Your task to perform on an android device: install app "Booking.com: Hotels and more" Image 0: 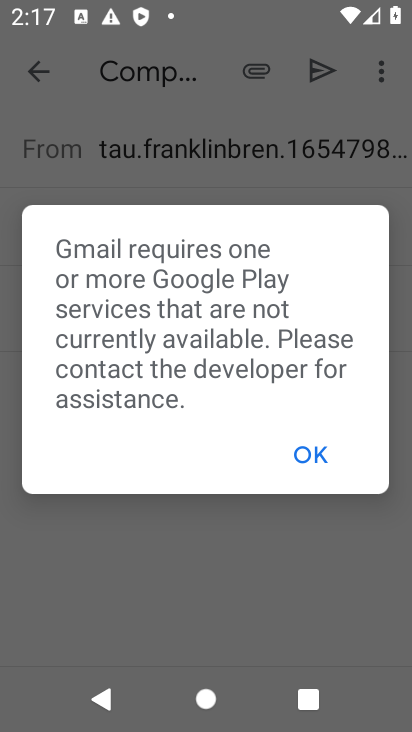
Step 0: press home button
Your task to perform on an android device: install app "Booking.com: Hotels and more" Image 1: 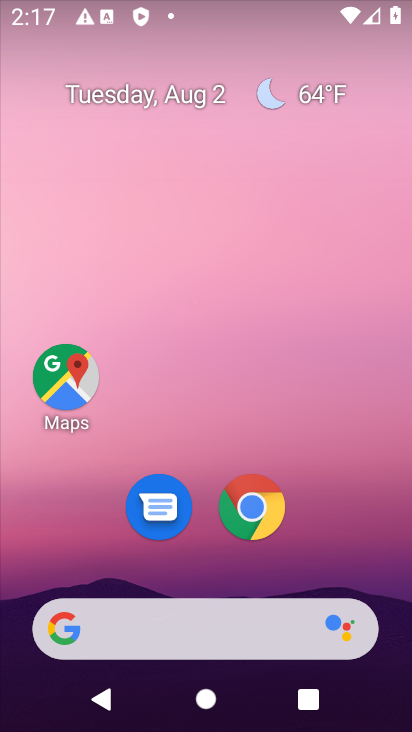
Step 1: drag from (197, 575) to (193, 2)
Your task to perform on an android device: install app "Booking.com: Hotels and more" Image 2: 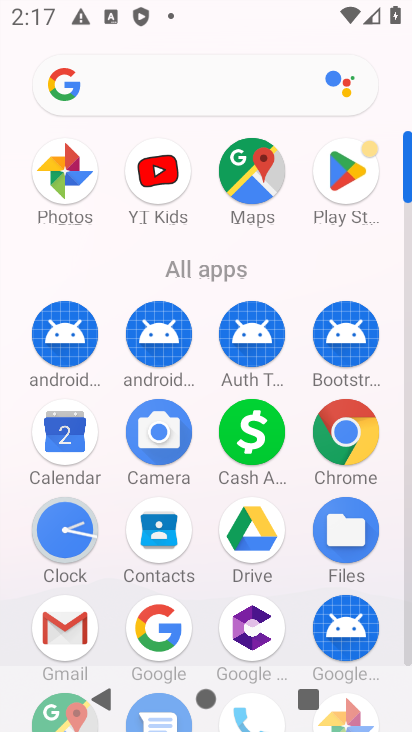
Step 2: click (345, 157)
Your task to perform on an android device: install app "Booking.com: Hotels and more" Image 3: 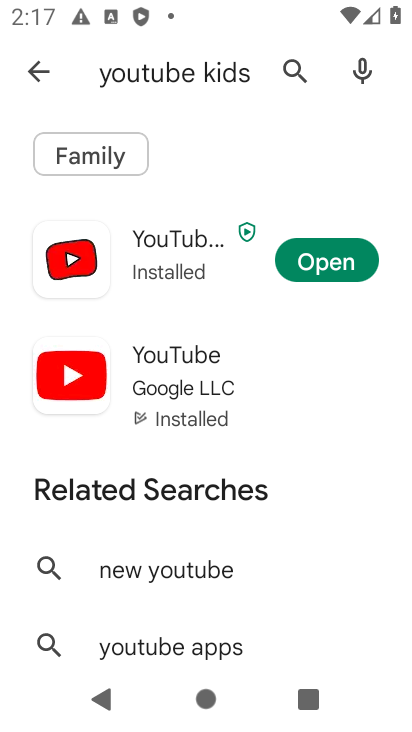
Step 3: click (159, 58)
Your task to perform on an android device: install app "Booking.com: Hotels and more" Image 4: 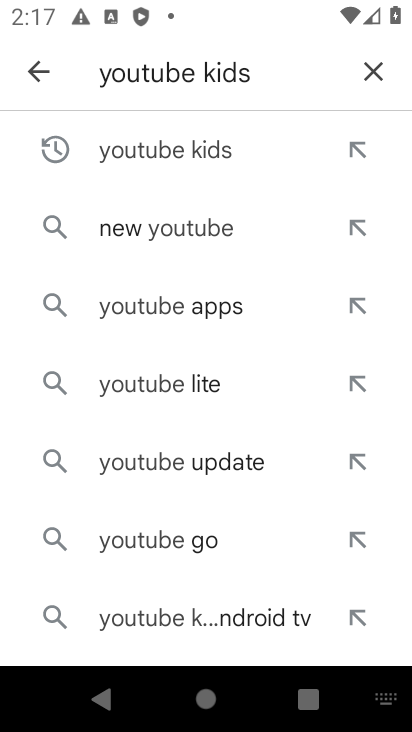
Step 4: click (378, 65)
Your task to perform on an android device: install app "Booking.com: Hotels and more" Image 5: 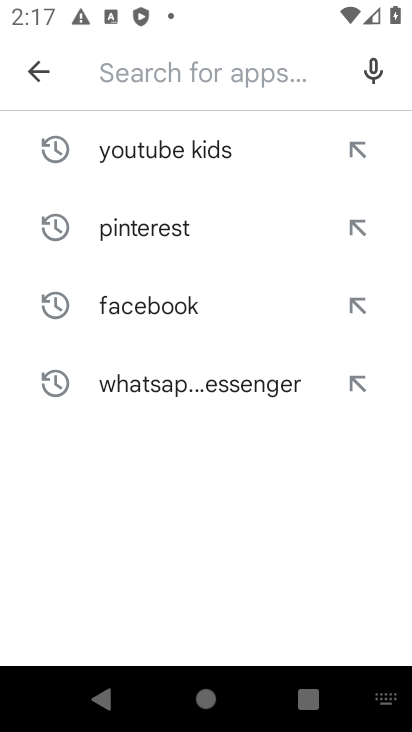
Step 5: type "Booking.com"
Your task to perform on an android device: install app "Booking.com: Hotels and more" Image 6: 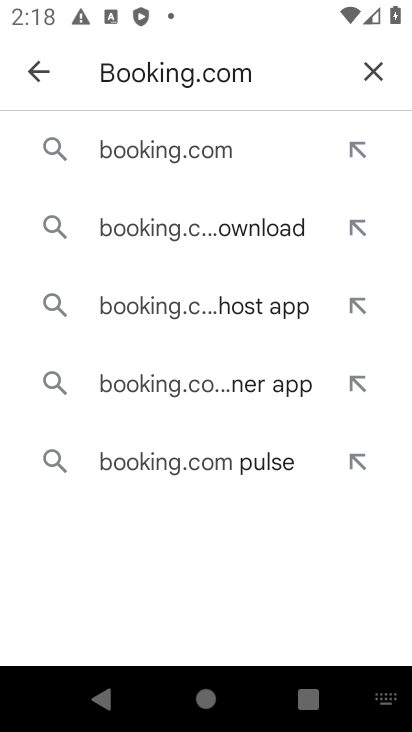
Step 6: click (183, 168)
Your task to perform on an android device: install app "Booking.com: Hotels and more" Image 7: 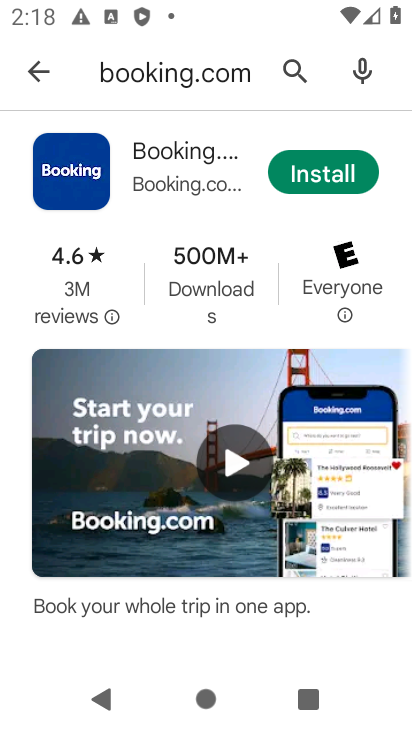
Step 7: click (343, 171)
Your task to perform on an android device: install app "Booking.com: Hotels and more" Image 8: 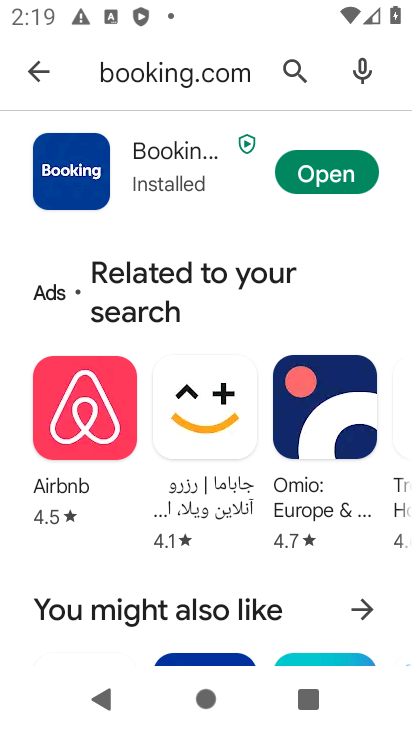
Step 8: task complete